Your task to perform on an android device: change text size in settings app Image 0: 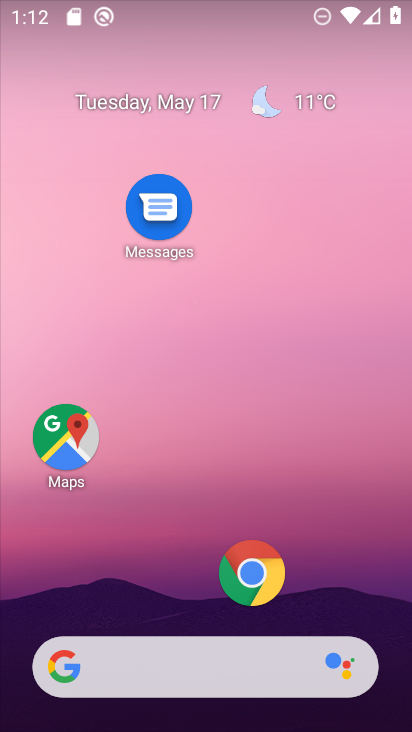
Step 0: drag from (191, 610) to (211, 100)
Your task to perform on an android device: change text size in settings app Image 1: 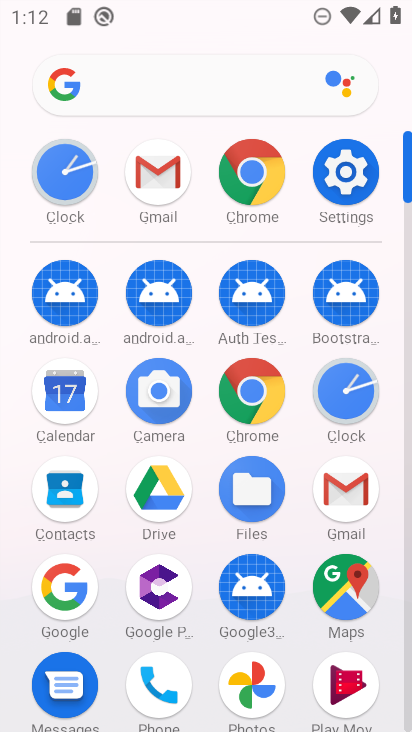
Step 1: click (343, 166)
Your task to perform on an android device: change text size in settings app Image 2: 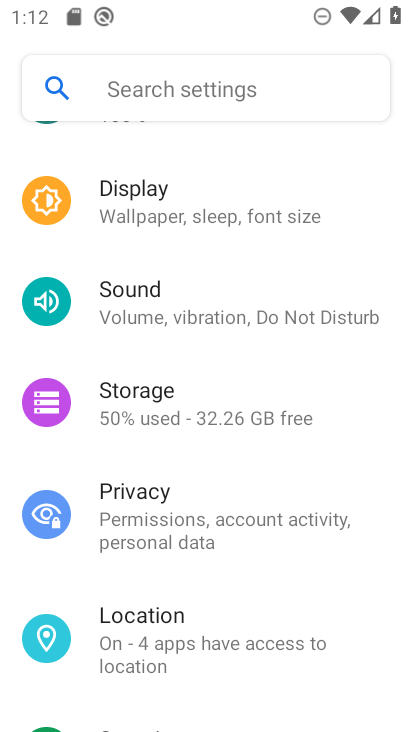
Step 2: click (187, 192)
Your task to perform on an android device: change text size in settings app Image 3: 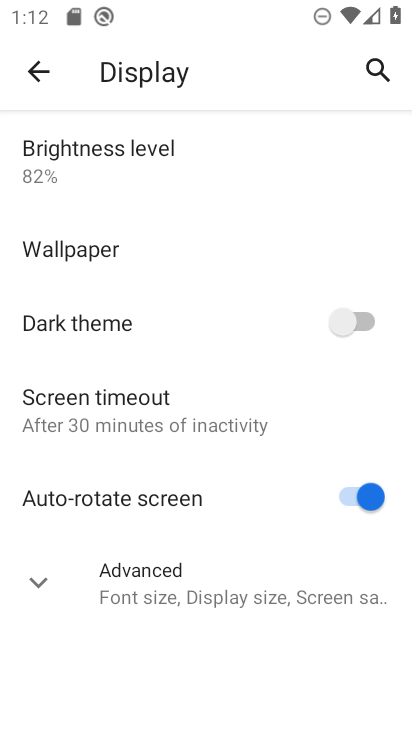
Step 3: click (43, 573)
Your task to perform on an android device: change text size in settings app Image 4: 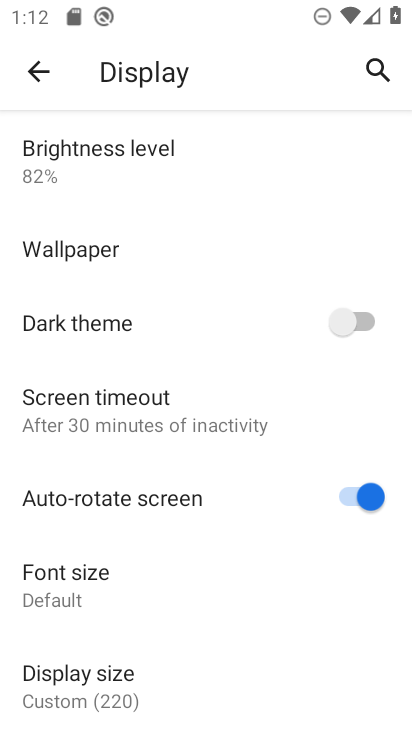
Step 4: click (102, 589)
Your task to perform on an android device: change text size in settings app Image 5: 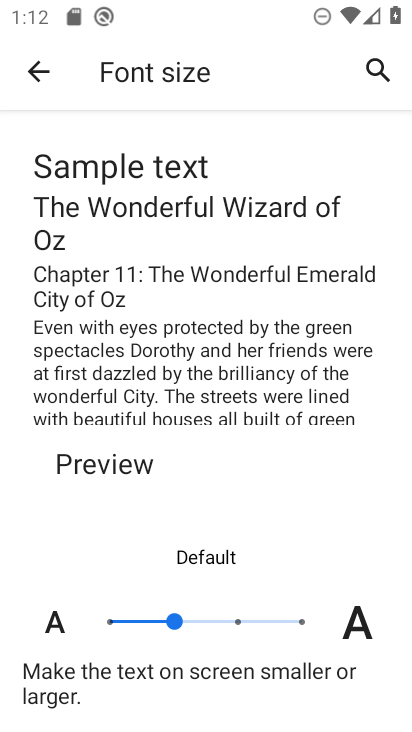
Step 5: click (113, 620)
Your task to perform on an android device: change text size in settings app Image 6: 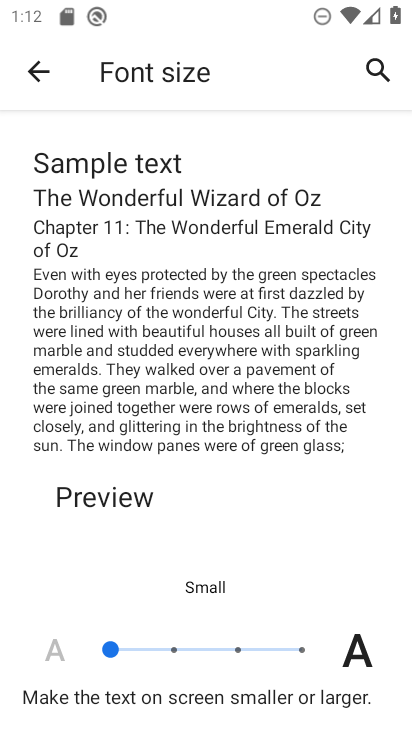
Step 6: task complete